Your task to perform on an android device: What's the weather going to be tomorrow? Image 0: 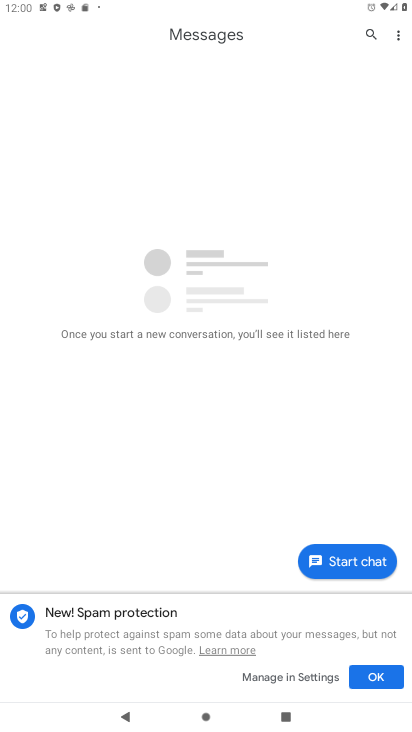
Step 0: press home button
Your task to perform on an android device: What's the weather going to be tomorrow? Image 1: 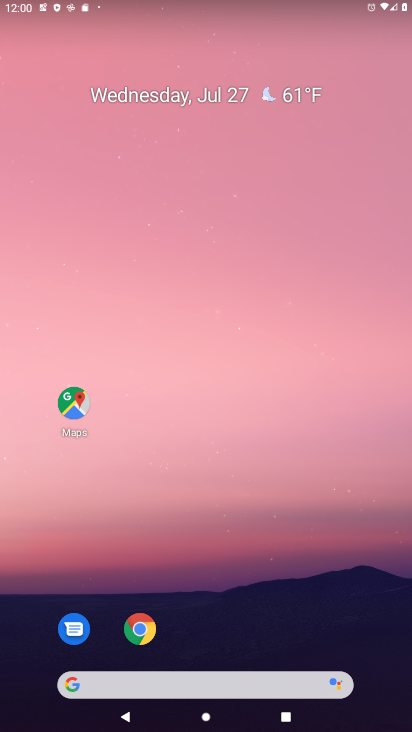
Step 1: click (211, 675)
Your task to perform on an android device: What's the weather going to be tomorrow? Image 2: 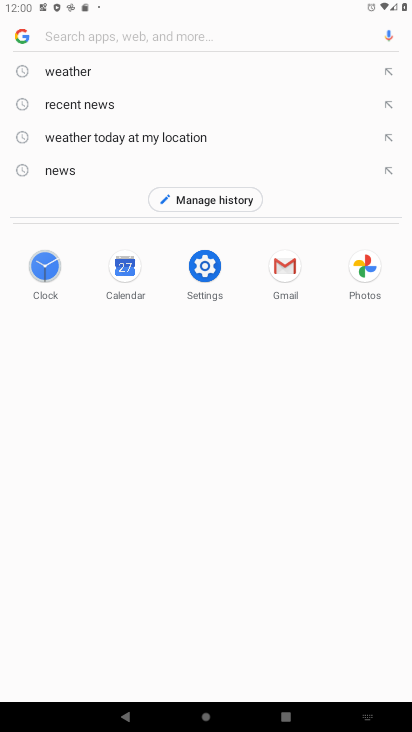
Step 2: click (144, 61)
Your task to perform on an android device: What's the weather going to be tomorrow? Image 3: 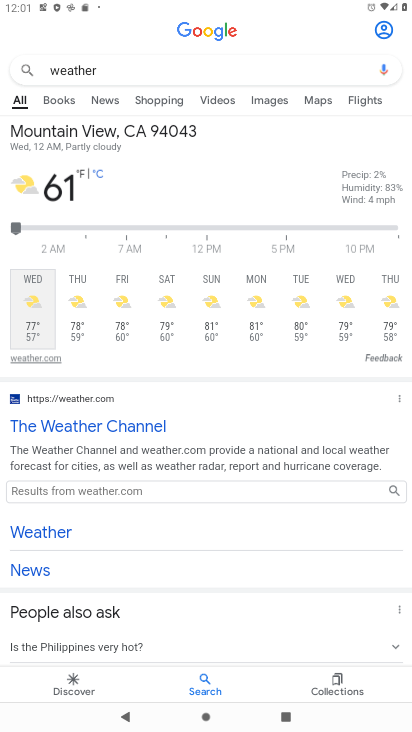
Step 3: task complete